Your task to perform on an android device: Open settings on Google Maps Image 0: 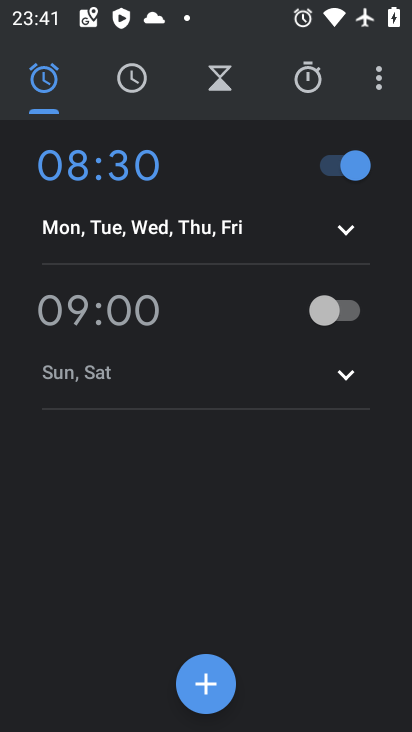
Step 0: press home button
Your task to perform on an android device: Open settings on Google Maps Image 1: 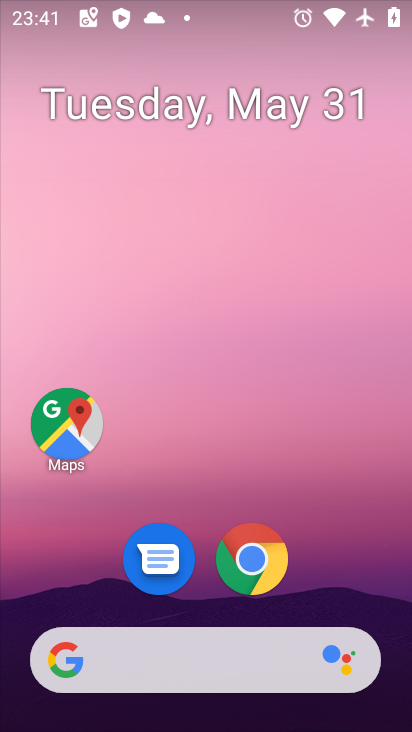
Step 1: click (62, 438)
Your task to perform on an android device: Open settings on Google Maps Image 2: 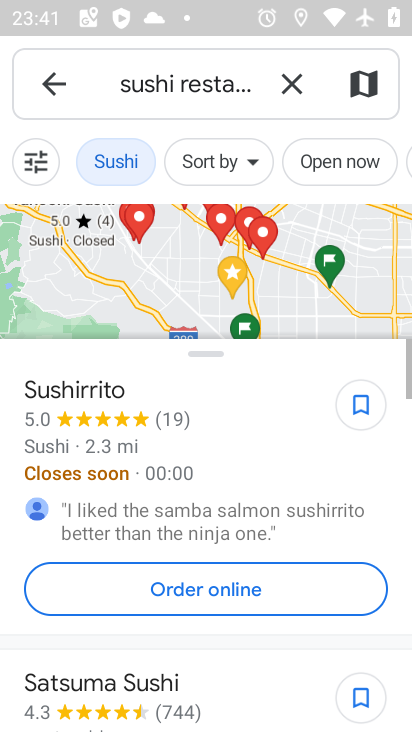
Step 2: click (290, 80)
Your task to perform on an android device: Open settings on Google Maps Image 3: 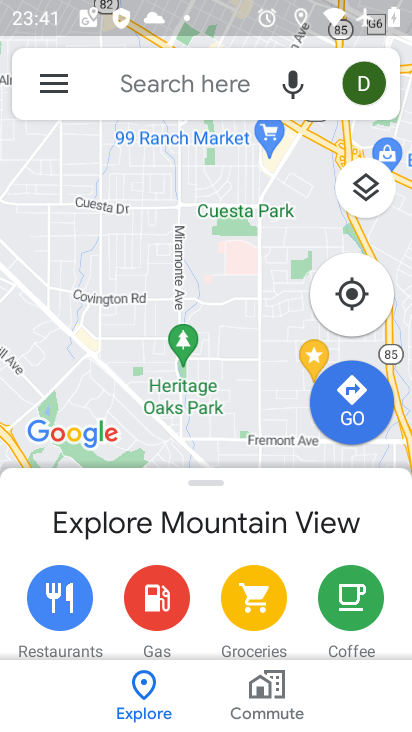
Step 3: click (58, 75)
Your task to perform on an android device: Open settings on Google Maps Image 4: 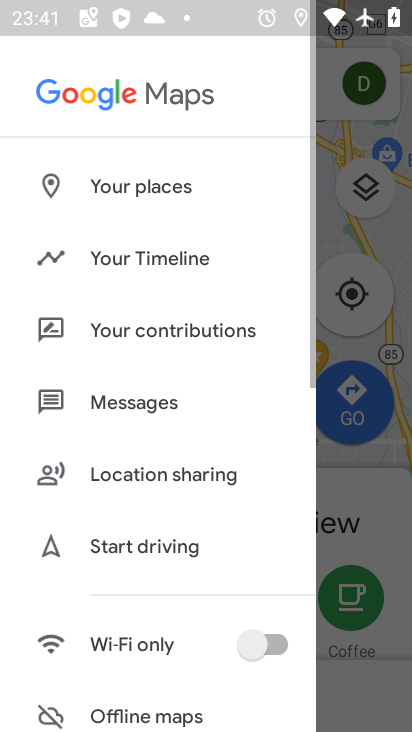
Step 4: drag from (148, 676) to (191, 106)
Your task to perform on an android device: Open settings on Google Maps Image 5: 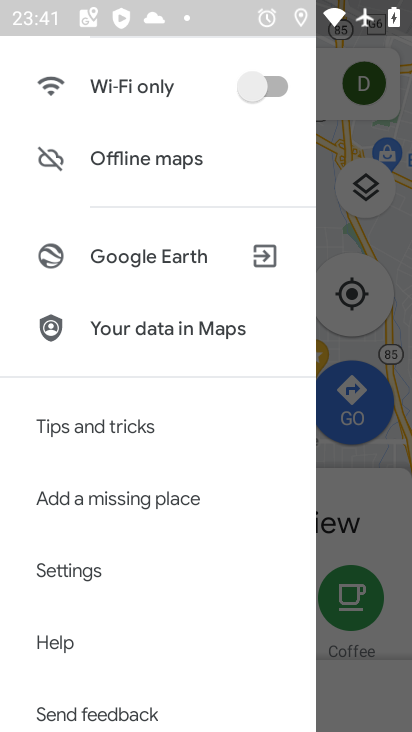
Step 5: click (55, 568)
Your task to perform on an android device: Open settings on Google Maps Image 6: 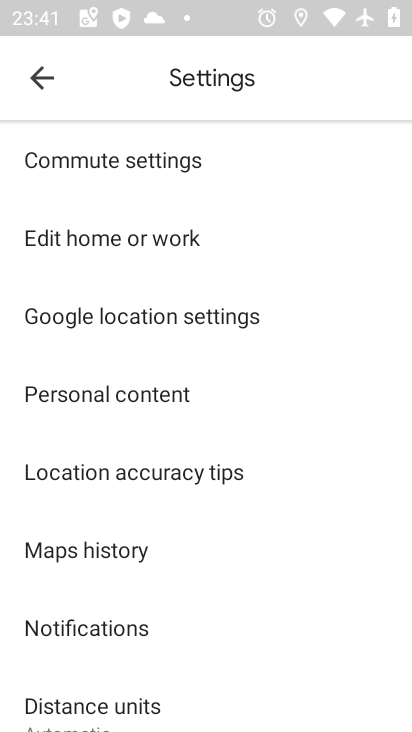
Step 6: task complete